Your task to perform on an android device: all mails in gmail Image 0: 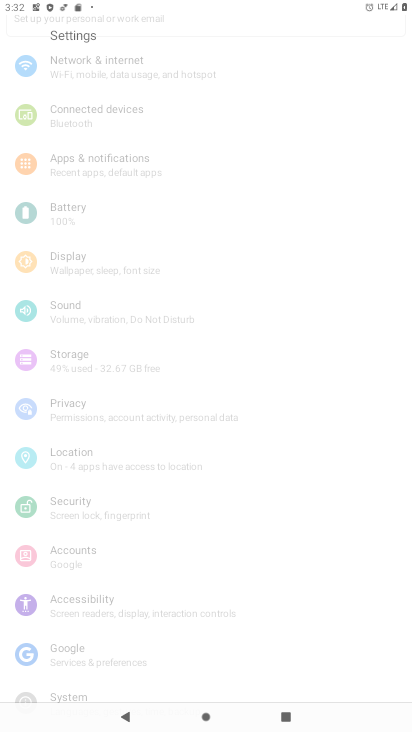
Step 0: drag from (202, 646) to (168, 261)
Your task to perform on an android device: all mails in gmail Image 1: 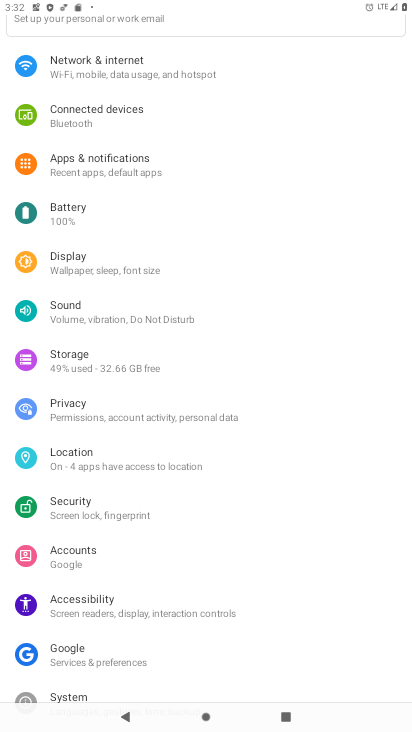
Step 1: press home button
Your task to perform on an android device: all mails in gmail Image 2: 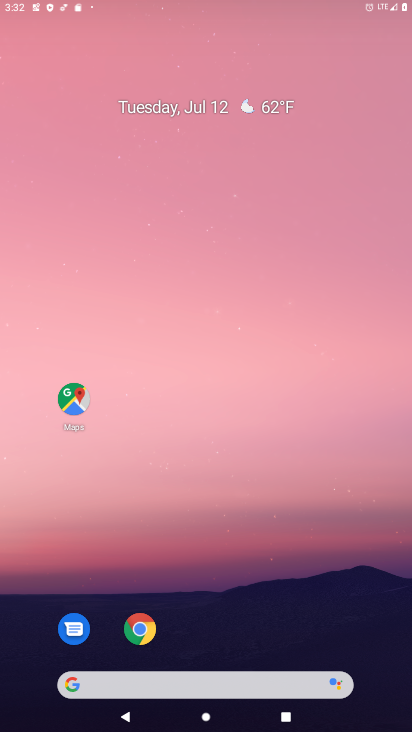
Step 2: drag from (215, 673) to (178, 10)
Your task to perform on an android device: all mails in gmail Image 3: 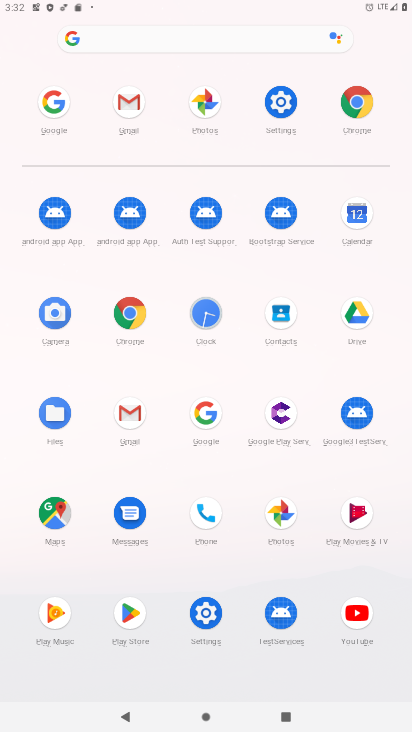
Step 3: click (122, 412)
Your task to perform on an android device: all mails in gmail Image 4: 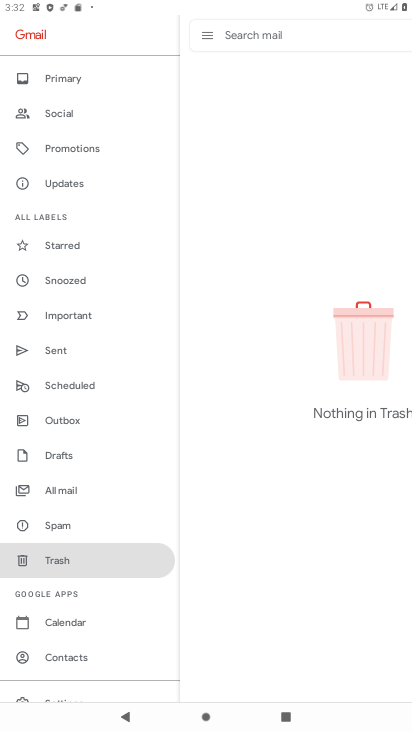
Step 4: drag from (71, 96) to (50, 346)
Your task to perform on an android device: all mails in gmail Image 5: 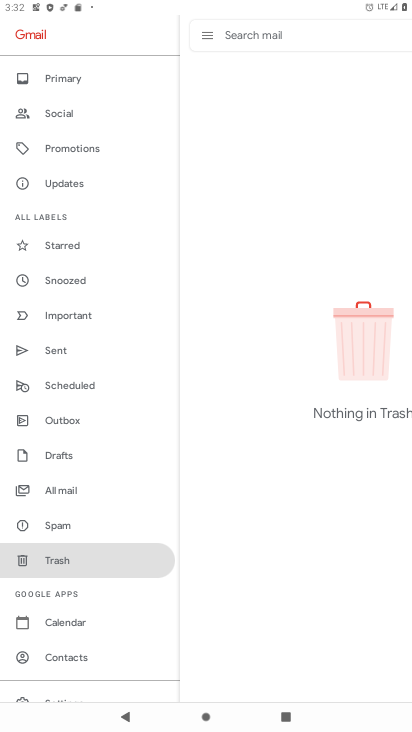
Step 5: click (53, 483)
Your task to perform on an android device: all mails in gmail Image 6: 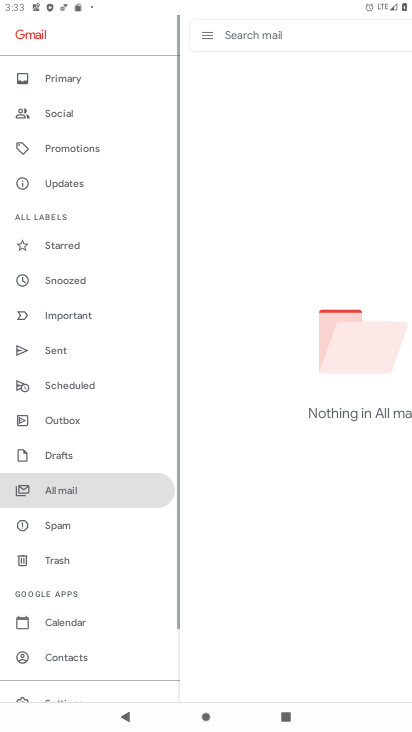
Step 6: task complete